Your task to perform on an android device: turn on priority inbox in the gmail app Image 0: 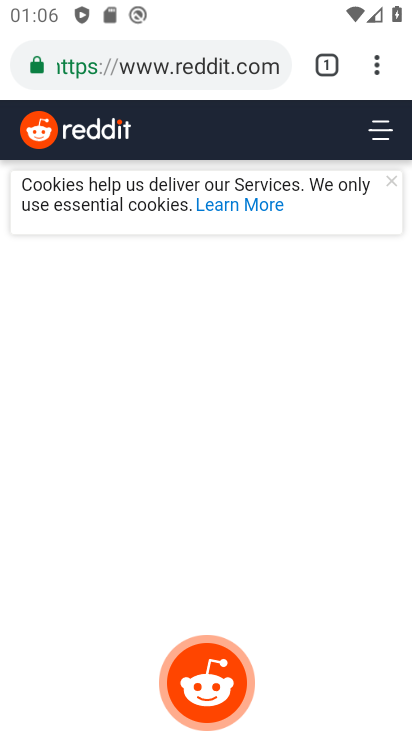
Step 0: press home button
Your task to perform on an android device: turn on priority inbox in the gmail app Image 1: 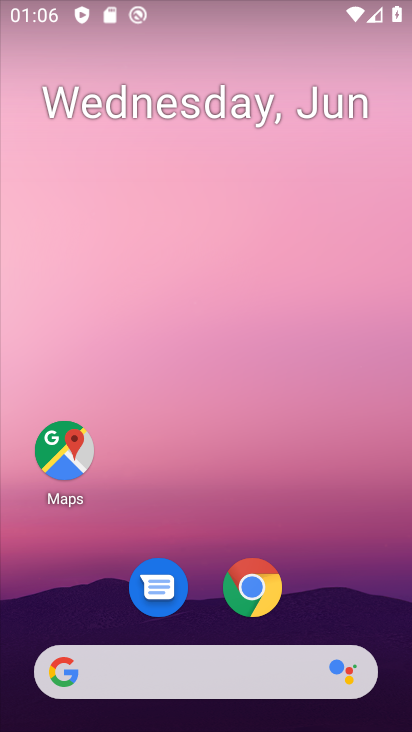
Step 1: drag from (340, 553) to (326, 152)
Your task to perform on an android device: turn on priority inbox in the gmail app Image 2: 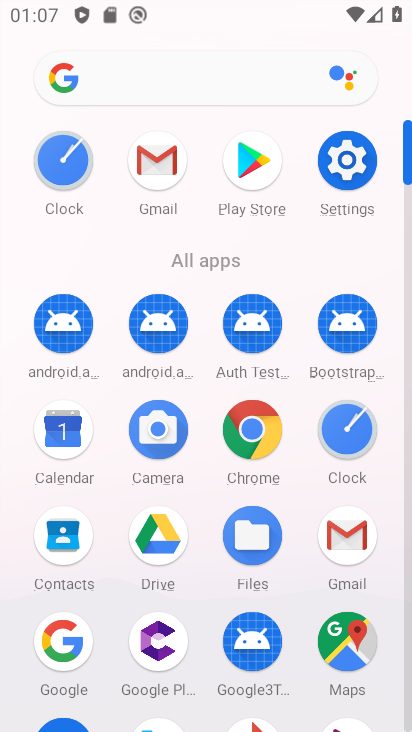
Step 2: click (162, 164)
Your task to perform on an android device: turn on priority inbox in the gmail app Image 3: 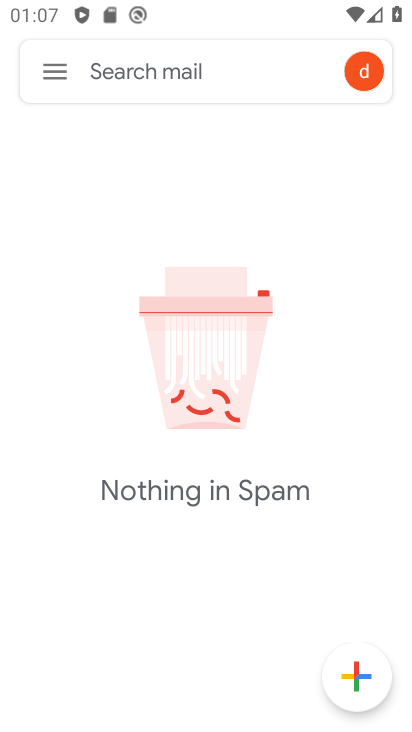
Step 3: click (58, 76)
Your task to perform on an android device: turn on priority inbox in the gmail app Image 4: 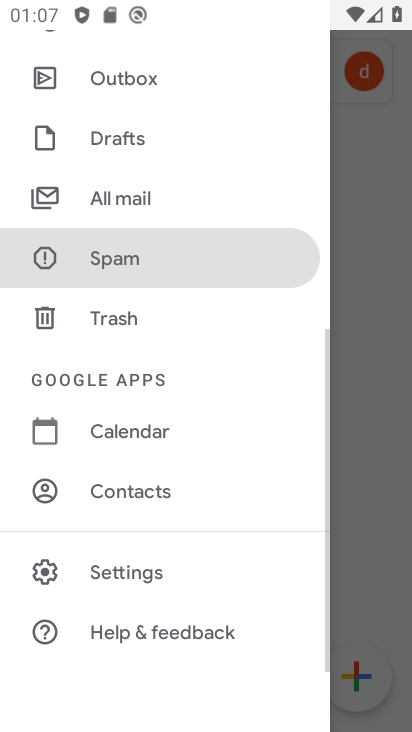
Step 4: click (140, 573)
Your task to perform on an android device: turn on priority inbox in the gmail app Image 5: 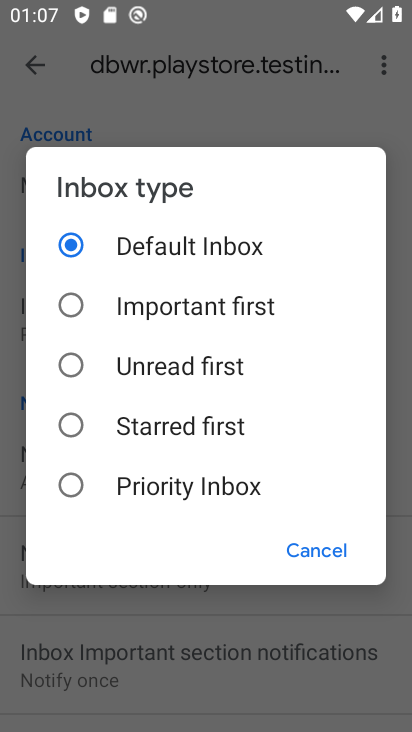
Step 5: task complete